Your task to perform on an android device: Look up the best rated wireless earbuds on Ali Express Image 0: 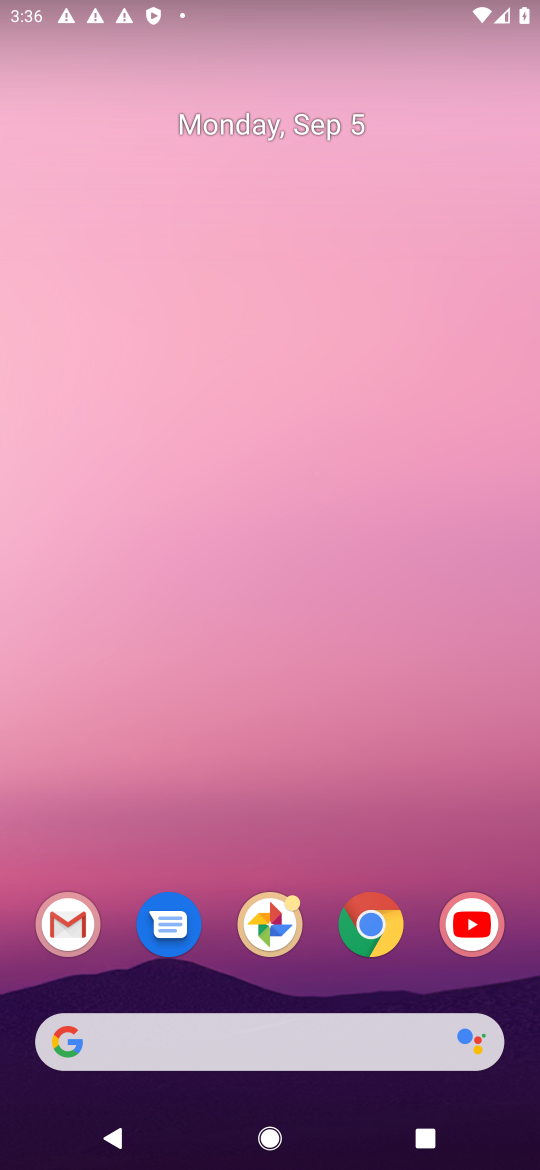
Step 0: drag from (356, 960) to (349, 404)
Your task to perform on an android device: Look up the best rated wireless earbuds on Ali Express Image 1: 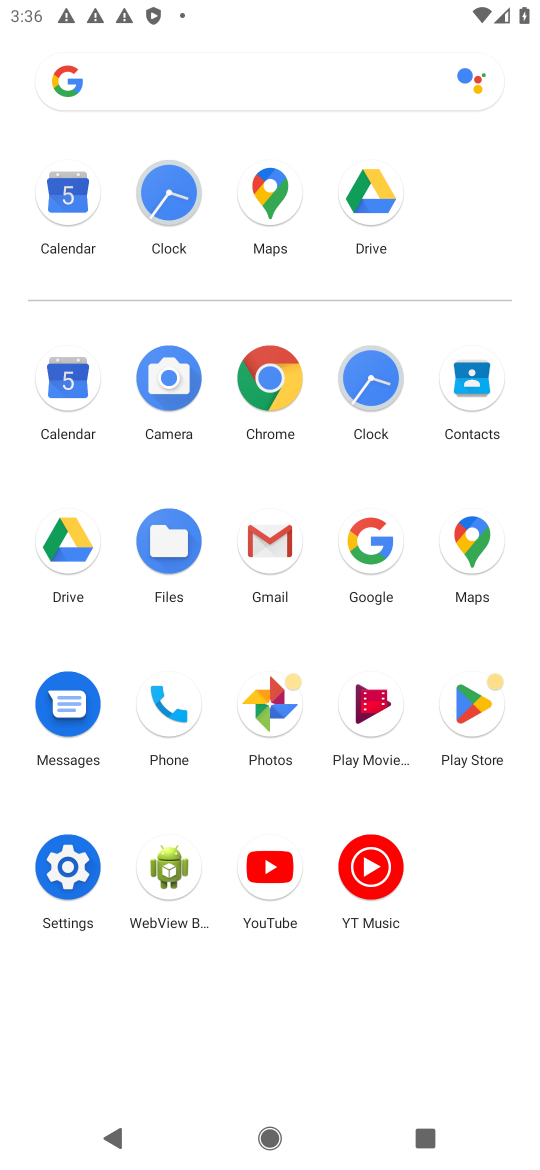
Step 1: click (238, 406)
Your task to perform on an android device: Look up the best rated wireless earbuds on Ali Express Image 2: 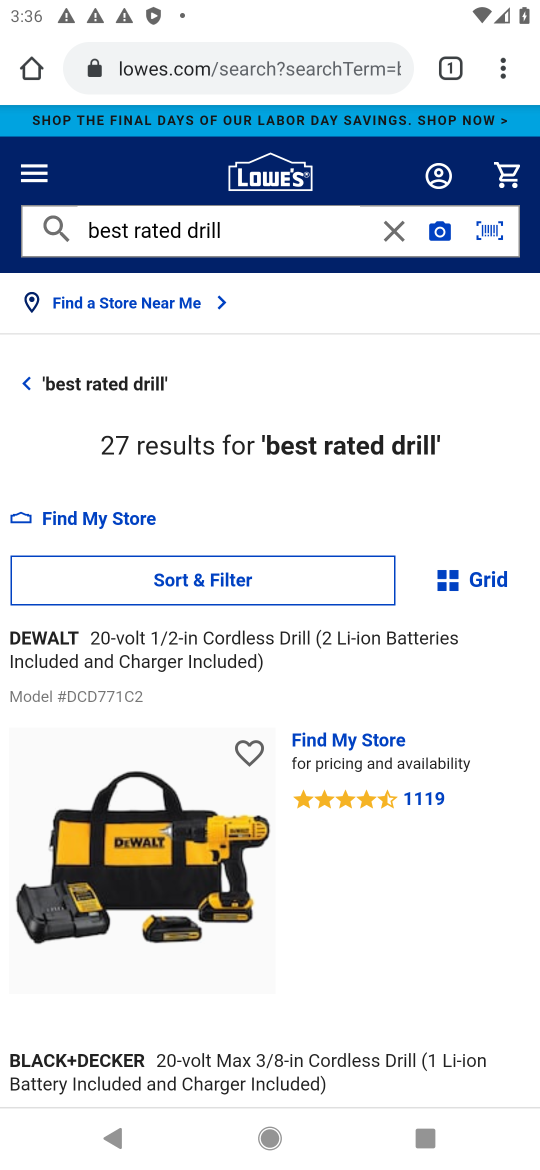
Step 2: click (326, 65)
Your task to perform on an android device: Look up the best rated wireless earbuds on Ali Express Image 3: 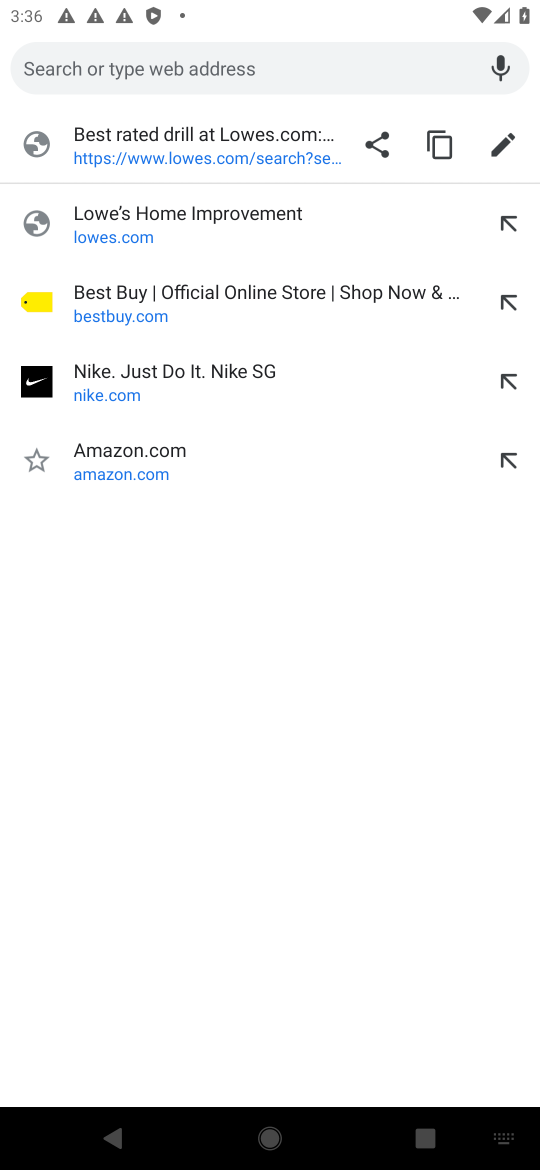
Step 3: type "aliexpress"
Your task to perform on an android device: Look up the best rated wireless earbuds on Ali Express Image 4: 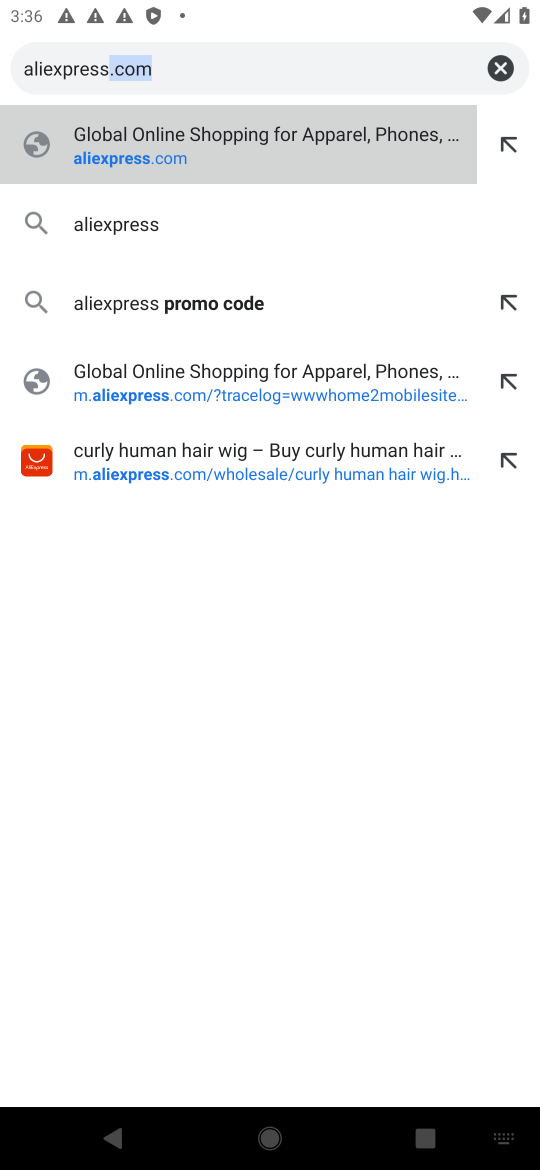
Step 4: click (308, 133)
Your task to perform on an android device: Look up the best rated wireless earbuds on Ali Express Image 5: 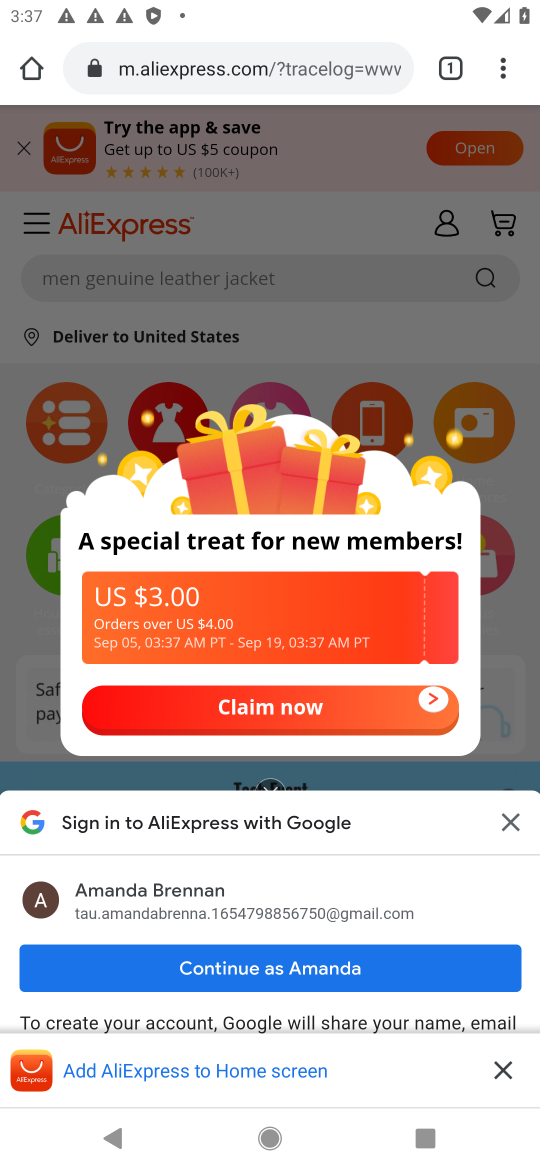
Step 5: click (512, 829)
Your task to perform on an android device: Look up the best rated wireless earbuds on Ali Express Image 6: 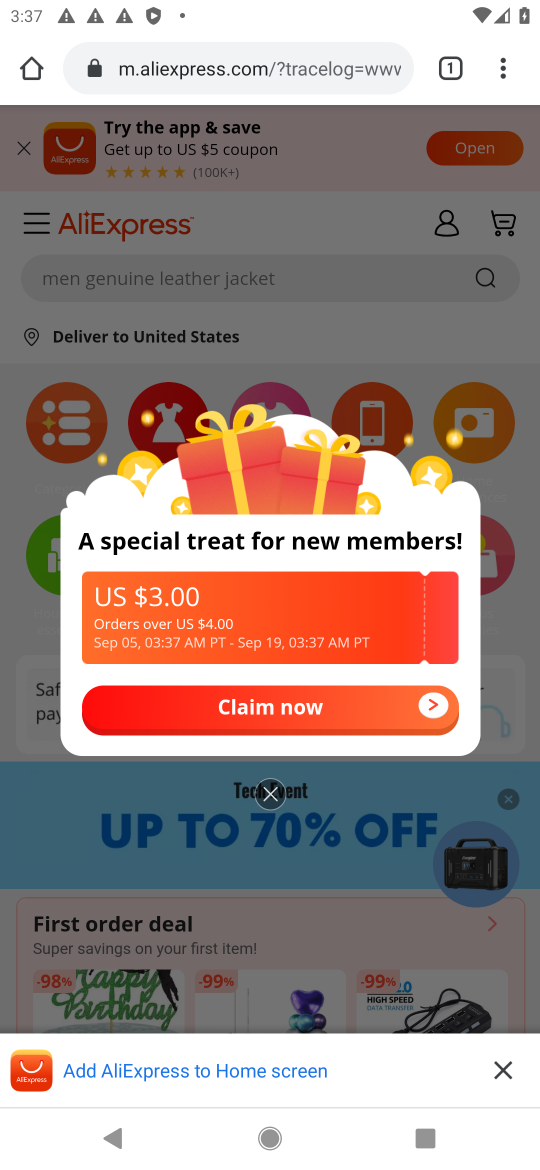
Step 6: click (274, 803)
Your task to perform on an android device: Look up the best rated wireless earbuds on Ali Express Image 7: 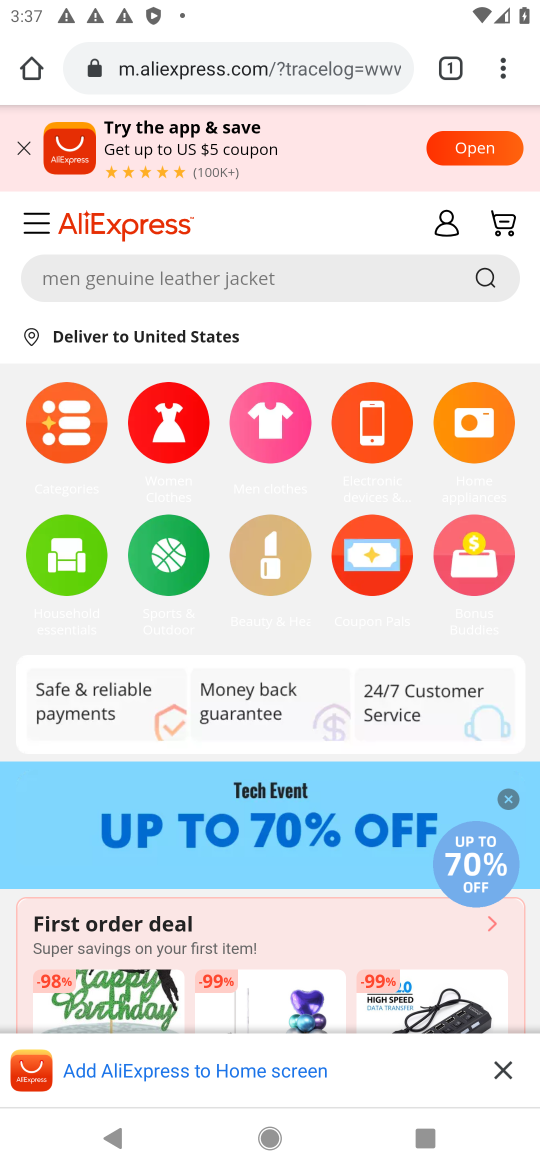
Step 7: click (313, 285)
Your task to perform on an android device: Look up the best rated wireless earbuds on Ali Express Image 8: 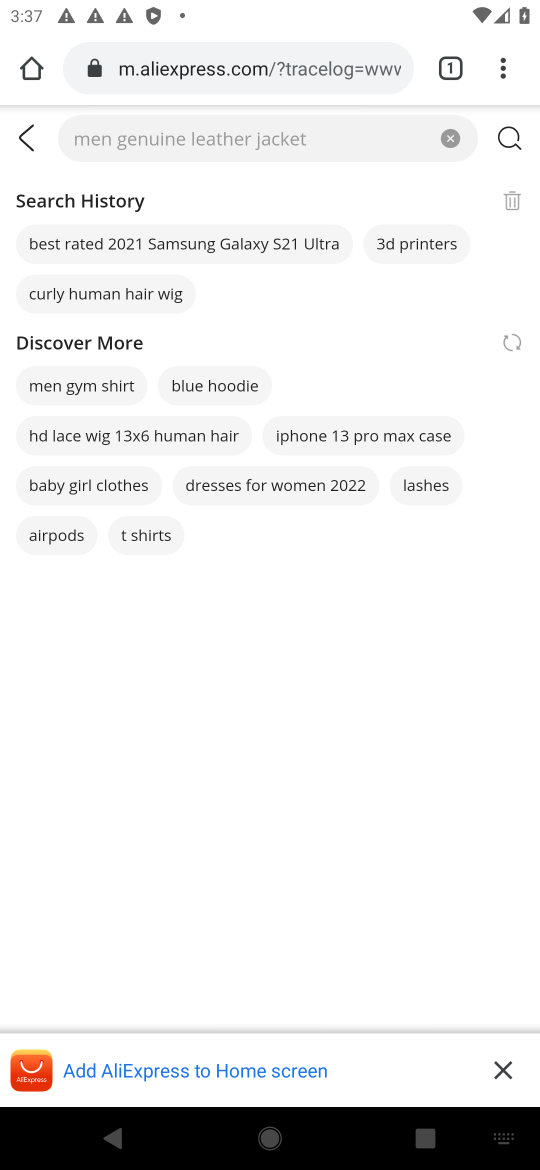
Step 8: type "best rated wireless earbuds"
Your task to perform on an android device: Look up the best rated wireless earbuds on Ali Express Image 9: 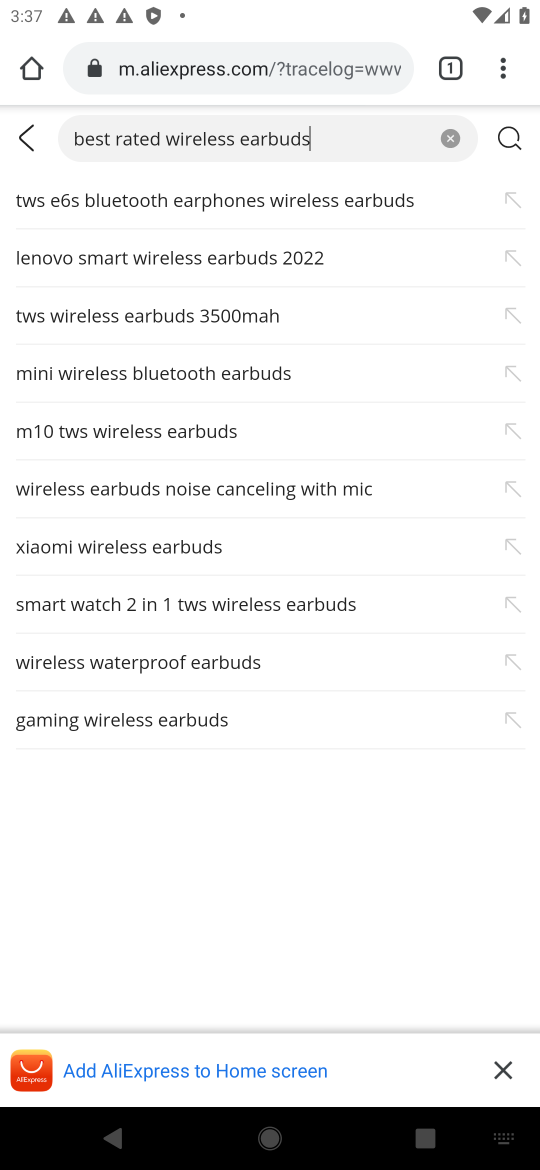
Step 9: click (509, 142)
Your task to perform on an android device: Look up the best rated wireless earbuds on Ali Express Image 10: 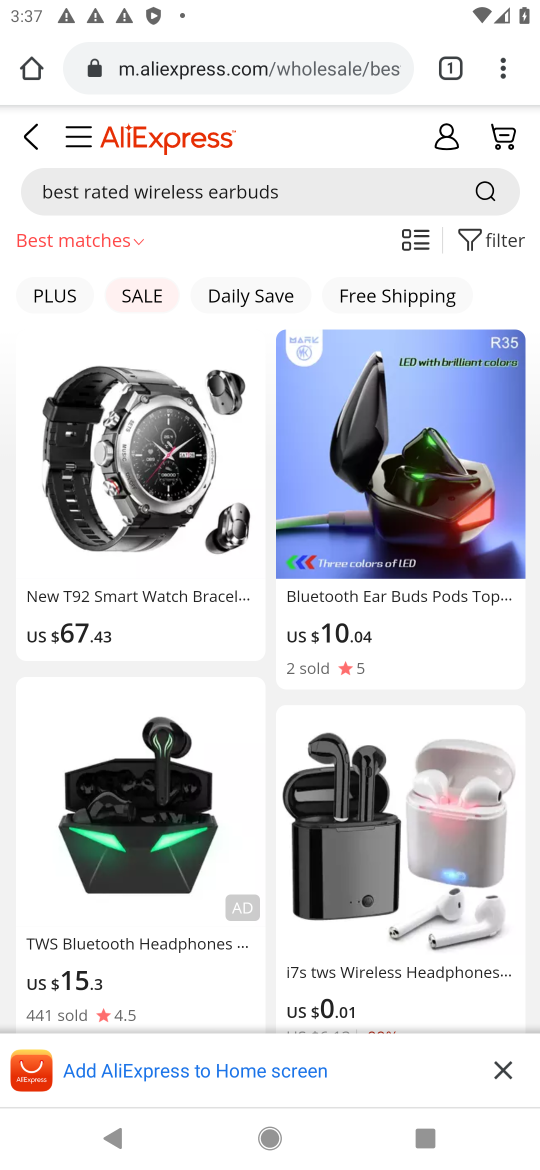
Step 10: task complete